Your task to perform on an android device: turn on the 12-hour format for clock Image 0: 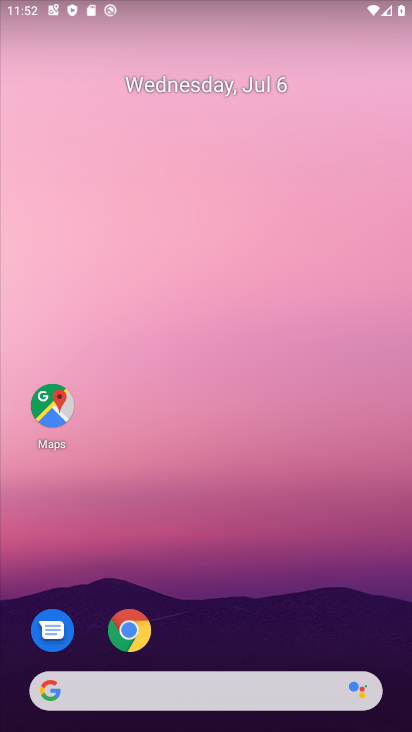
Step 0: drag from (232, 605) to (197, 141)
Your task to perform on an android device: turn on the 12-hour format for clock Image 1: 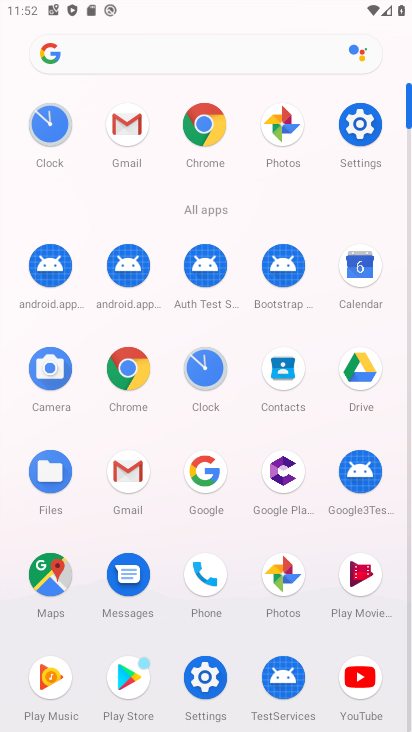
Step 1: click (207, 371)
Your task to perform on an android device: turn on the 12-hour format for clock Image 2: 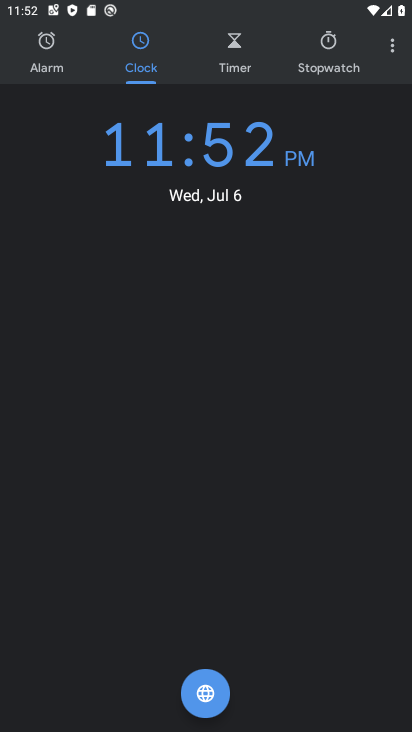
Step 2: press home button
Your task to perform on an android device: turn on the 12-hour format for clock Image 3: 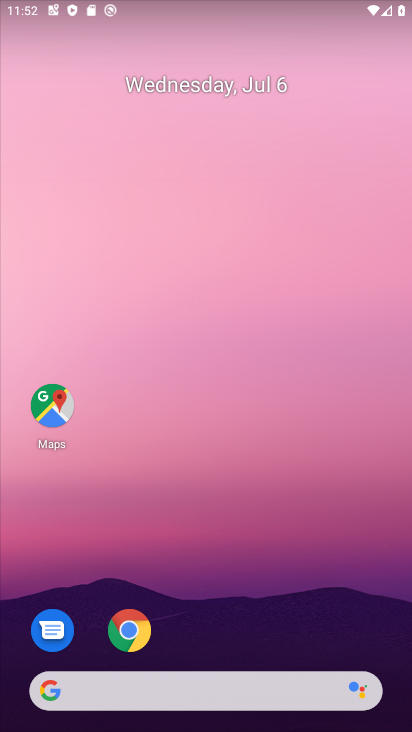
Step 3: drag from (233, 592) to (258, 234)
Your task to perform on an android device: turn on the 12-hour format for clock Image 4: 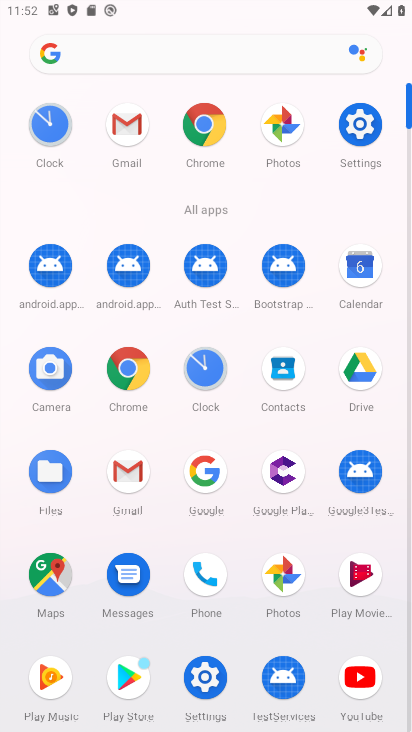
Step 4: click (204, 683)
Your task to perform on an android device: turn on the 12-hour format for clock Image 5: 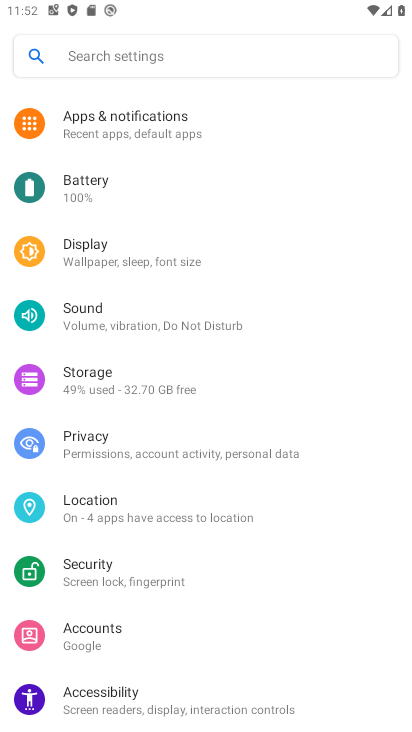
Step 5: drag from (134, 638) to (175, 210)
Your task to perform on an android device: turn on the 12-hour format for clock Image 6: 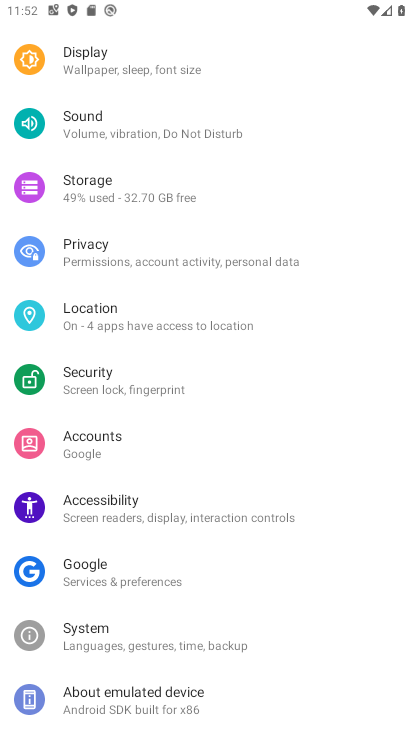
Step 6: click (116, 646)
Your task to perform on an android device: turn on the 12-hour format for clock Image 7: 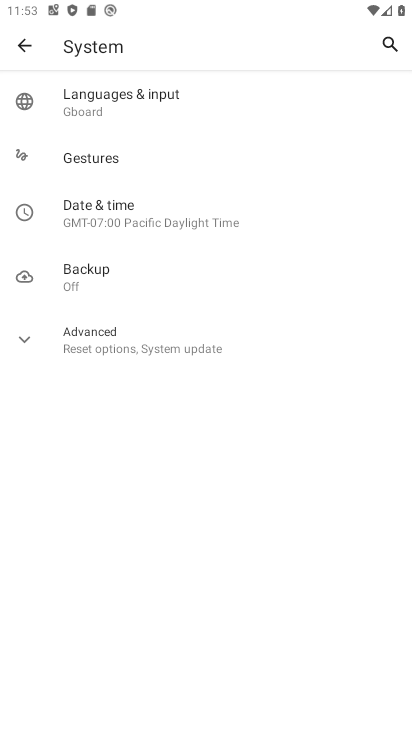
Step 7: click (144, 219)
Your task to perform on an android device: turn on the 12-hour format for clock Image 8: 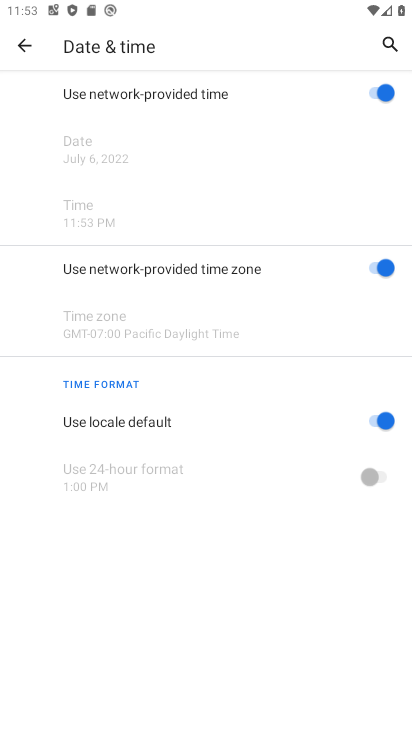
Step 8: task complete